Your task to perform on an android device: move a message to another label in the gmail app Image 0: 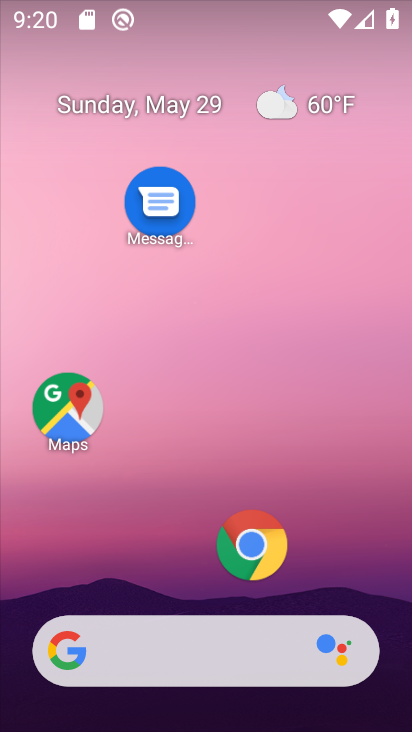
Step 0: drag from (197, 621) to (319, 98)
Your task to perform on an android device: move a message to another label in the gmail app Image 1: 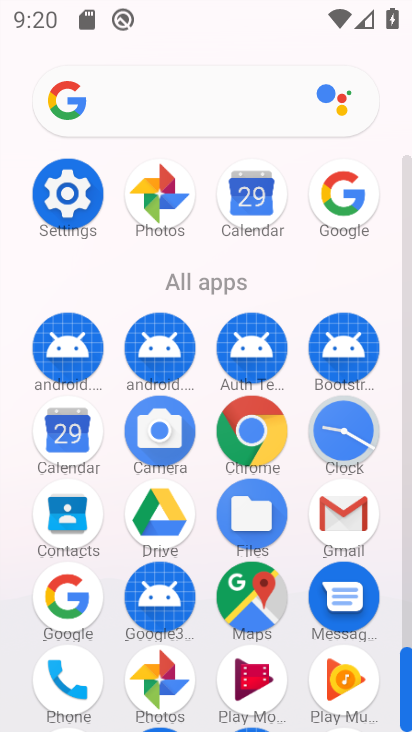
Step 1: click (322, 517)
Your task to perform on an android device: move a message to another label in the gmail app Image 2: 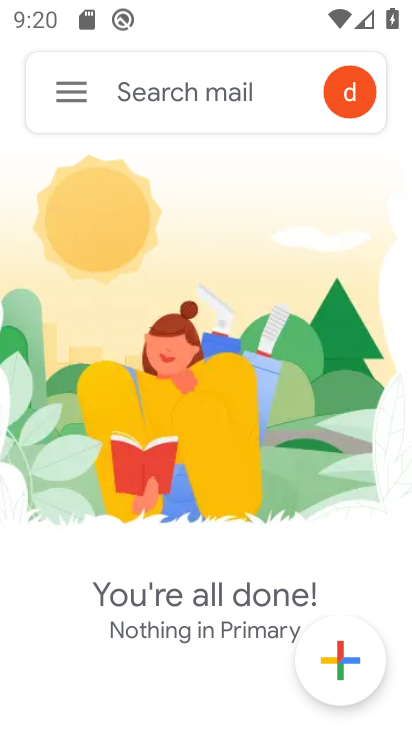
Step 2: task complete